Your task to perform on an android device: turn on showing notifications on the lock screen Image 0: 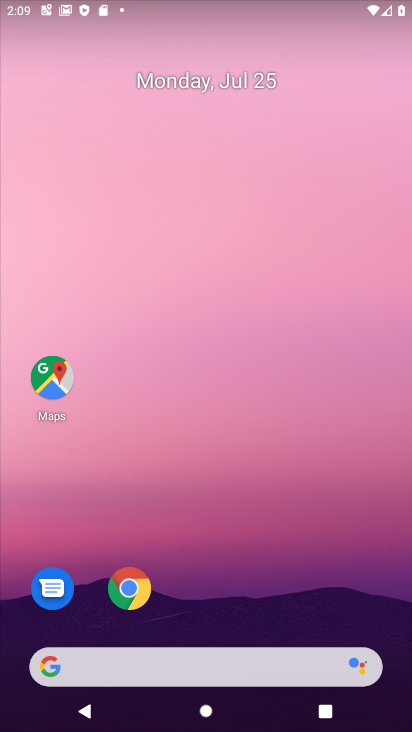
Step 0: drag from (236, 584) to (252, 151)
Your task to perform on an android device: turn on showing notifications on the lock screen Image 1: 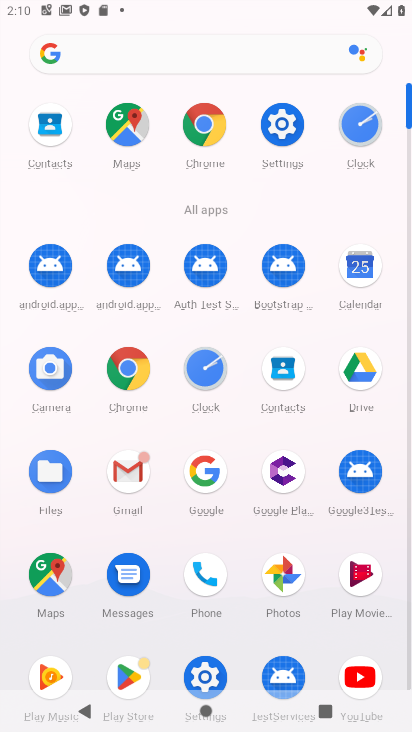
Step 1: click (295, 127)
Your task to perform on an android device: turn on showing notifications on the lock screen Image 2: 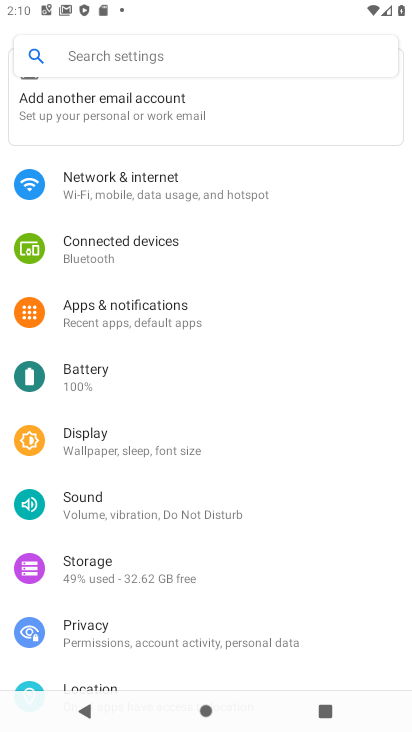
Step 2: click (152, 317)
Your task to perform on an android device: turn on showing notifications on the lock screen Image 3: 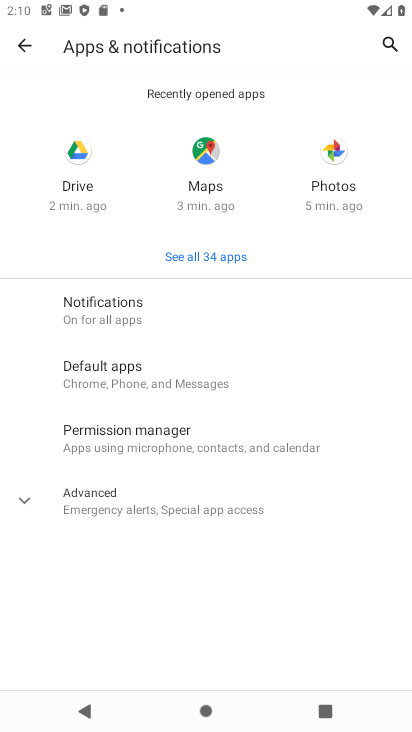
Step 3: click (154, 315)
Your task to perform on an android device: turn on showing notifications on the lock screen Image 4: 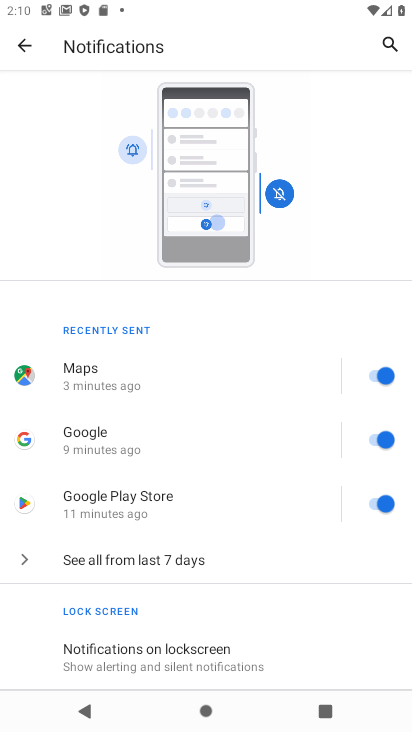
Step 4: click (149, 657)
Your task to perform on an android device: turn on showing notifications on the lock screen Image 5: 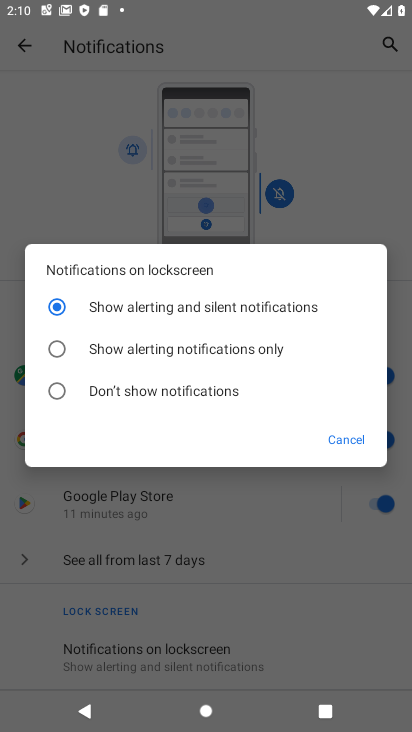
Step 5: task complete